Your task to perform on an android device: empty trash in the gmail app Image 0: 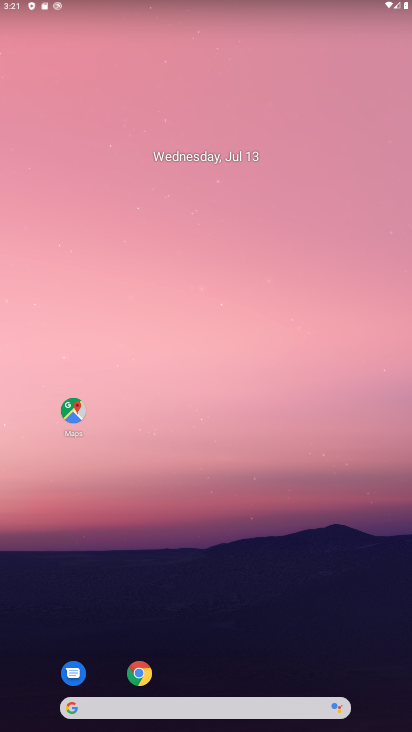
Step 0: drag from (223, 622) to (254, 150)
Your task to perform on an android device: empty trash in the gmail app Image 1: 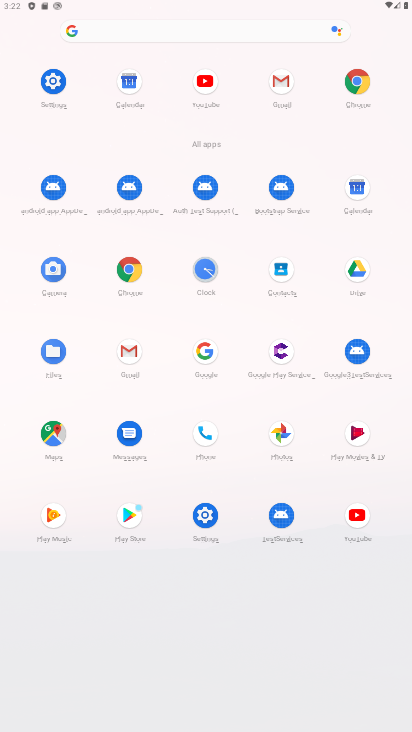
Step 1: click (122, 350)
Your task to perform on an android device: empty trash in the gmail app Image 2: 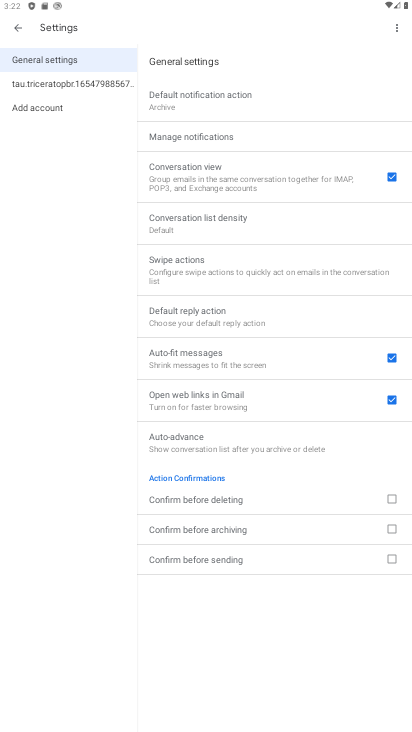
Step 2: click (39, 75)
Your task to perform on an android device: empty trash in the gmail app Image 3: 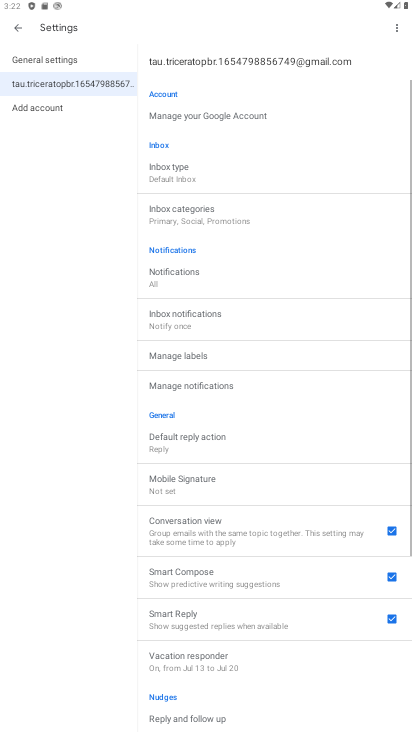
Step 3: click (15, 33)
Your task to perform on an android device: empty trash in the gmail app Image 4: 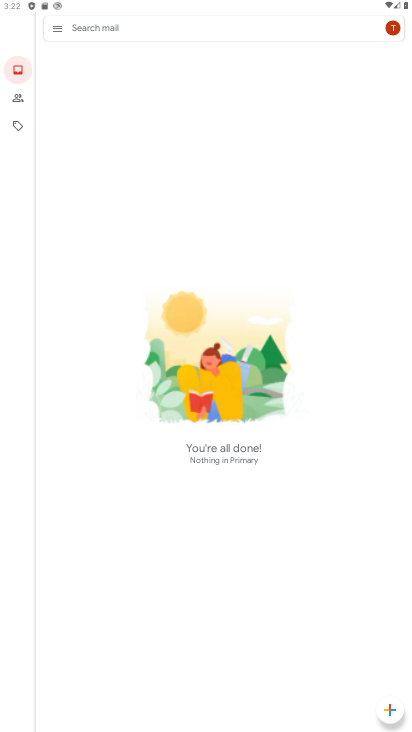
Step 4: click (57, 17)
Your task to perform on an android device: empty trash in the gmail app Image 5: 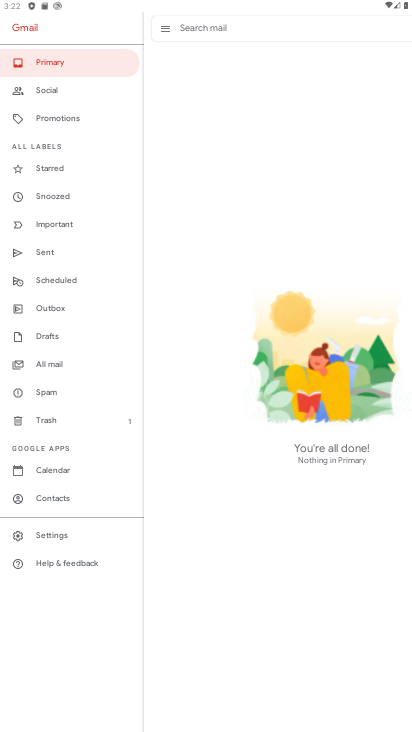
Step 5: click (44, 421)
Your task to perform on an android device: empty trash in the gmail app Image 6: 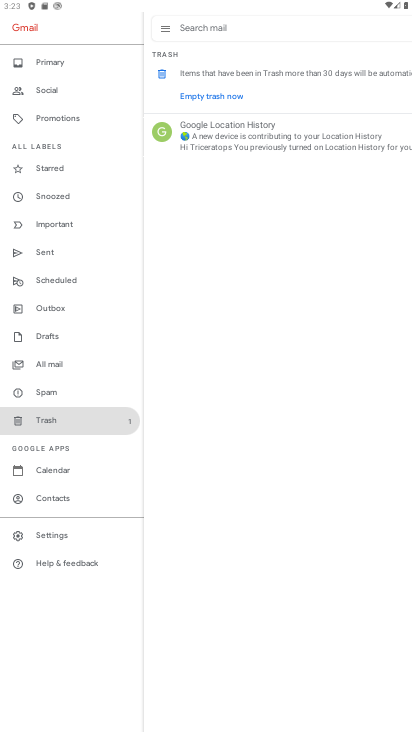
Step 6: click (76, 420)
Your task to perform on an android device: empty trash in the gmail app Image 7: 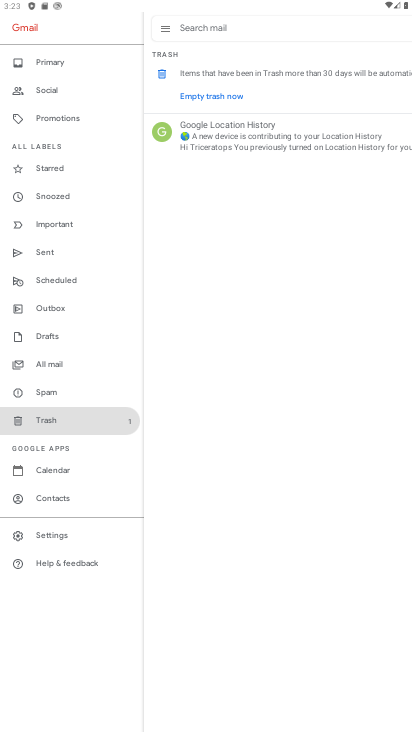
Step 7: task complete